Your task to perform on an android device: Check the weather Image 0: 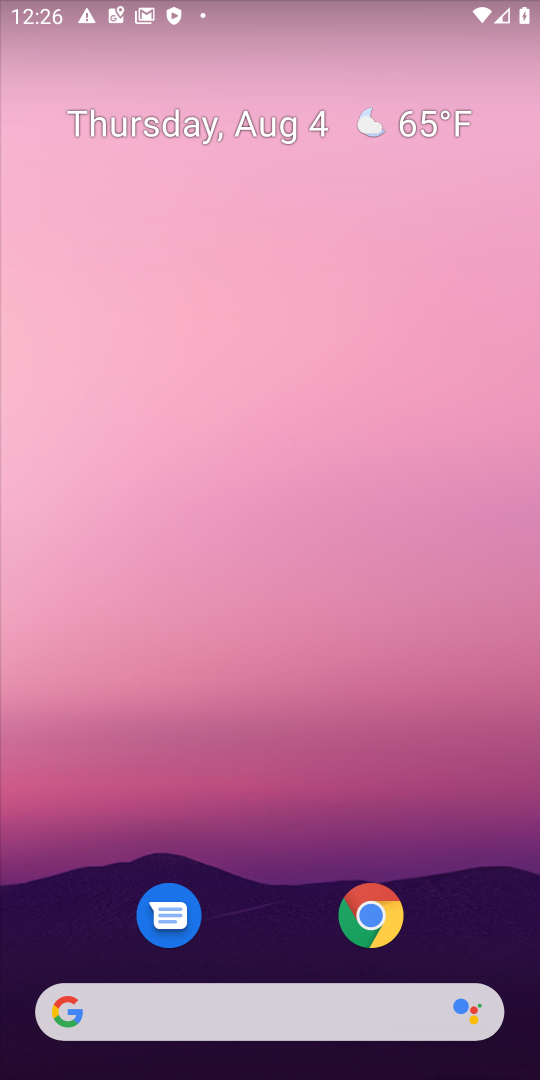
Step 0: drag from (152, 580) to (133, 228)
Your task to perform on an android device: Check the weather Image 1: 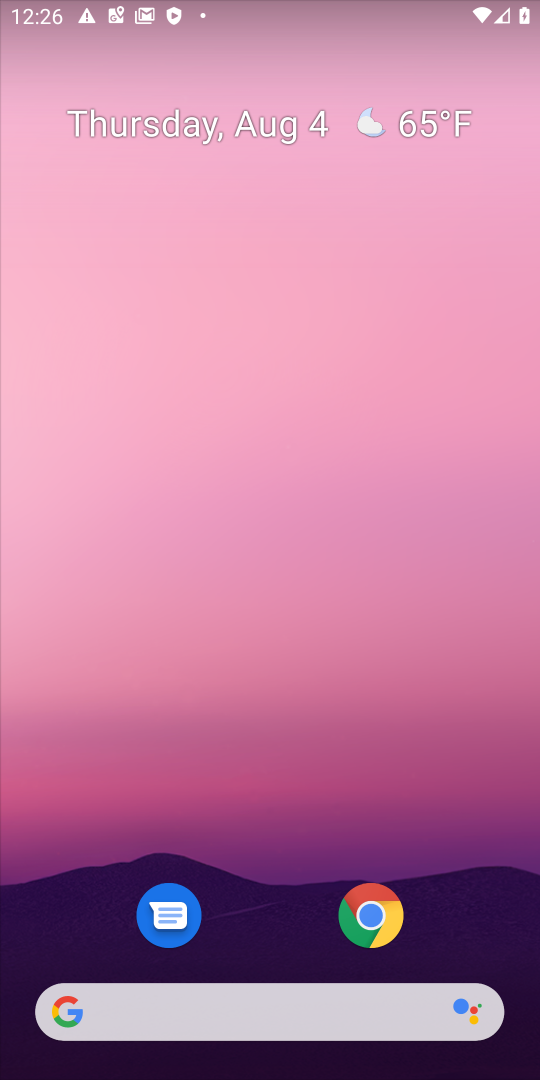
Step 1: click (292, 1006)
Your task to perform on an android device: Check the weather Image 2: 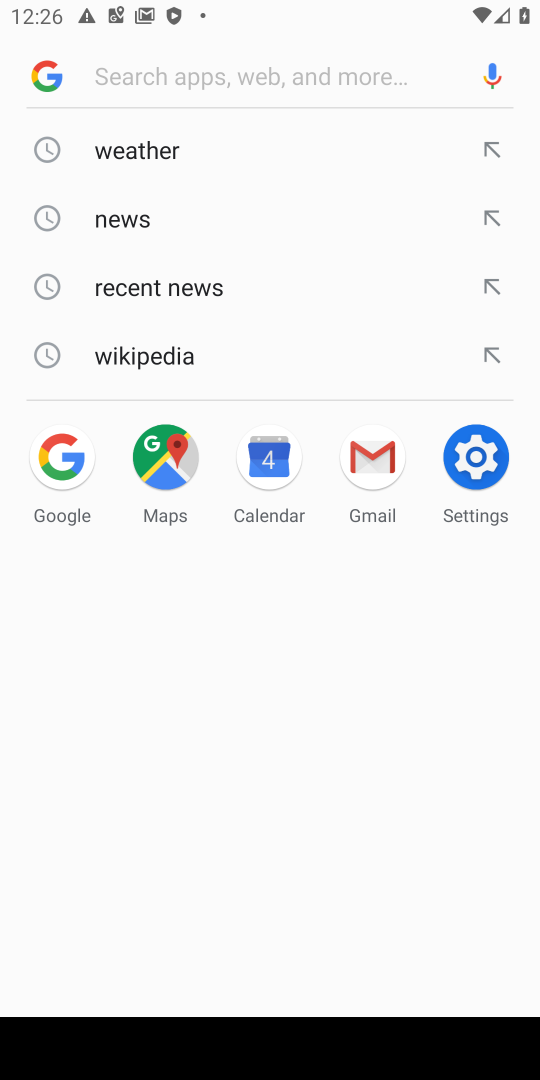
Step 2: click (162, 162)
Your task to perform on an android device: Check the weather Image 3: 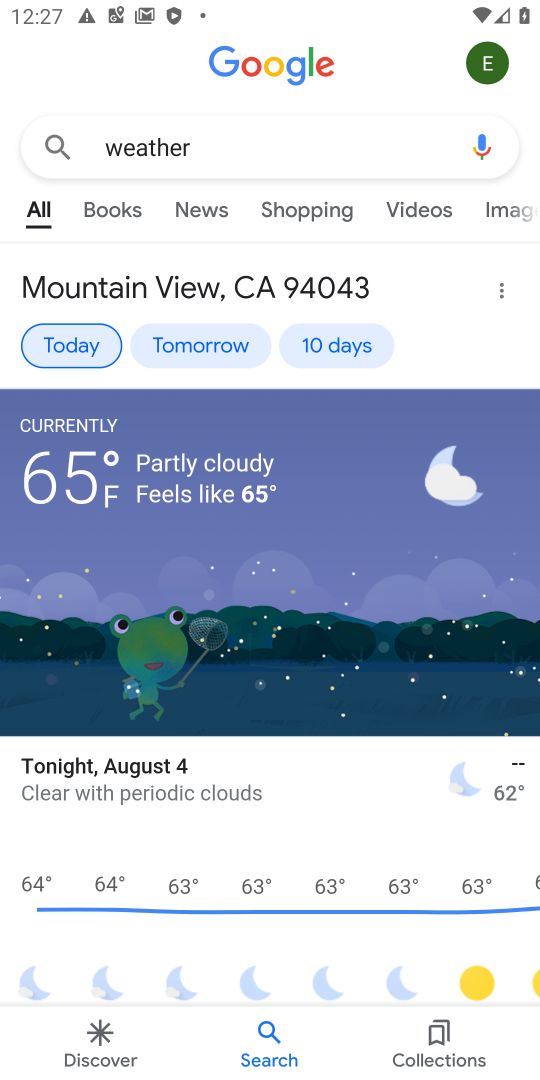
Step 3: task complete